Your task to perform on an android device: turn on data saver in the chrome app Image 0: 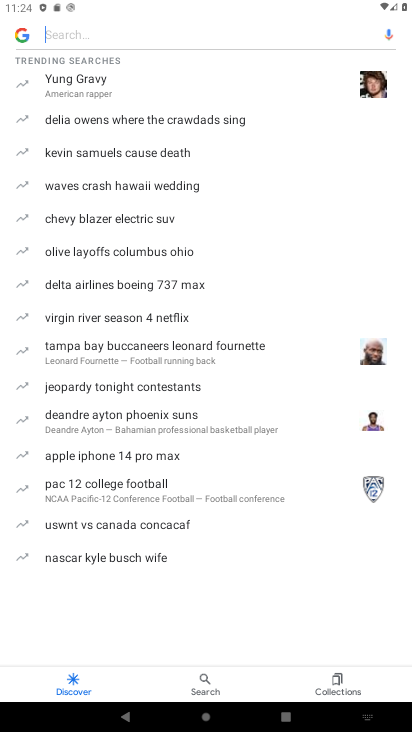
Step 0: press home button
Your task to perform on an android device: turn on data saver in the chrome app Image 1: 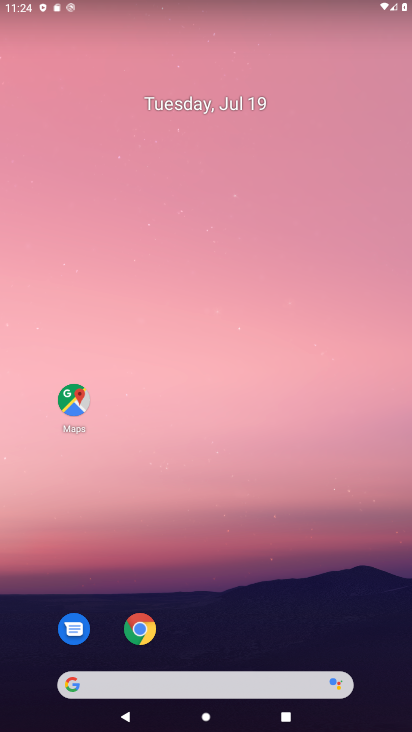
Step 1: drag from (349, 594) to (346, 110)
Your task to perform on an android device: turn on data saver in the chrome app Image 2: 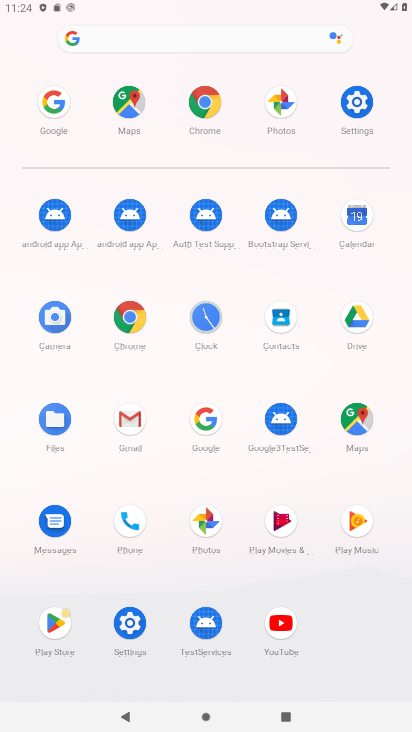
Step 2: click (135, 312)
Your task to perform on an android device: turn on data saver in the chrome app Image 3: 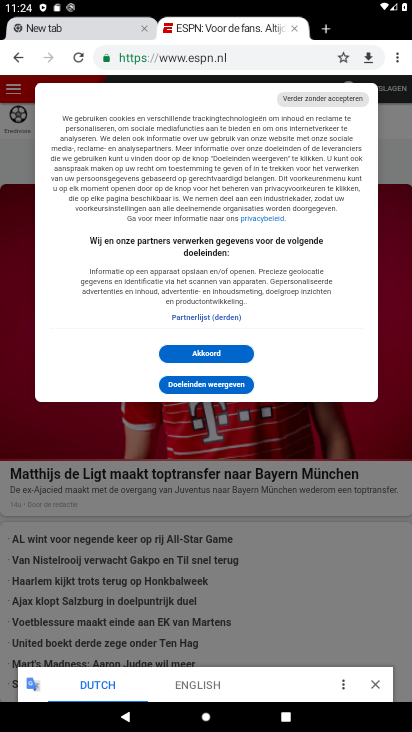
Step 3: click (399, 59)
Your task to perform on an android device: turn on data saver in the chrome app Image 4: 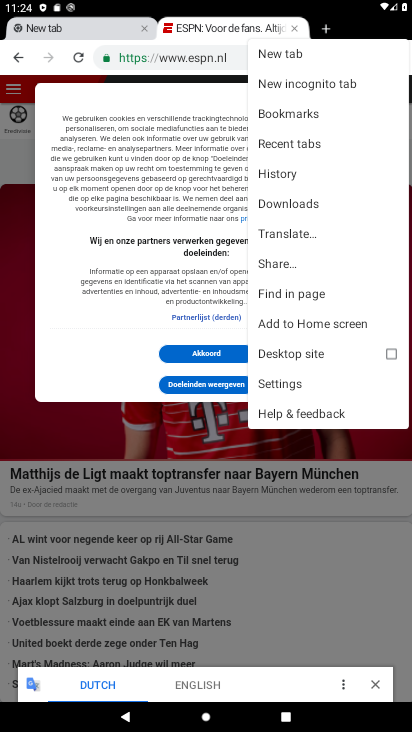
Step 4: click (325, 372)
Your task to perform on an android device: turn on data saver in the chrome app Image 5: 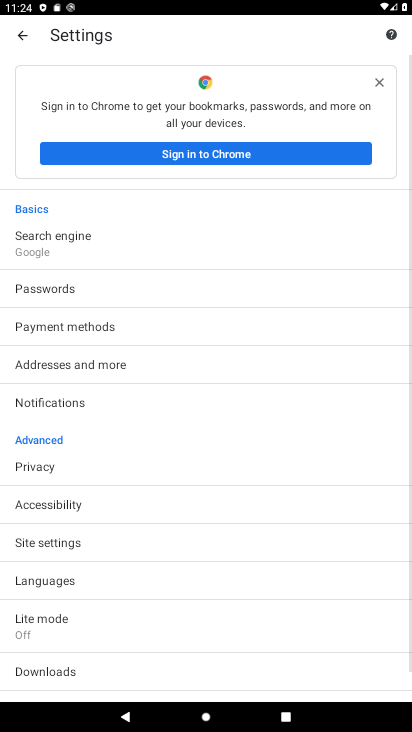
Step 5: drag from (310, 455) to (322, 370)
Your task to perform on an android device: turn on data saver in the chrome app Image 6: 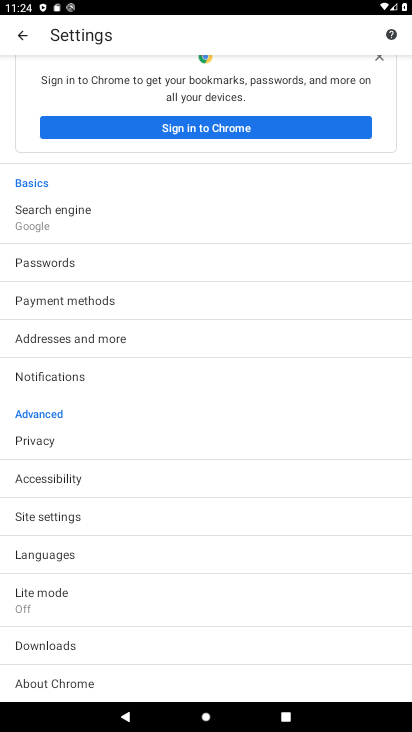
Step 6: drag from (319, 471) to (322, 363)
Your task to perform on an android device: turn on data saver in the chrome app Image 7: 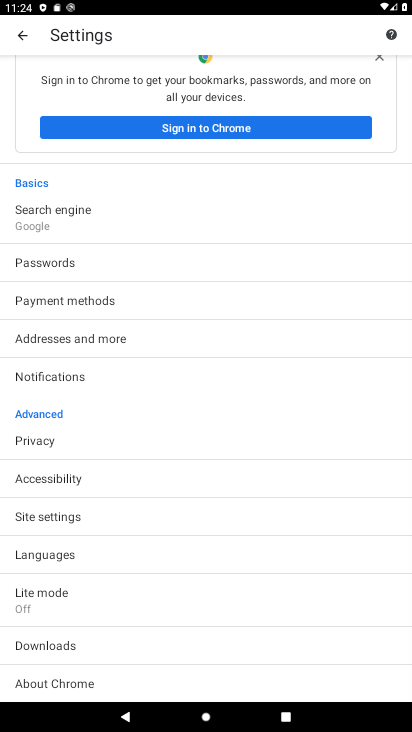
Step 7: click (311, 595)
Your task to perform on an android device: turn on data saver in the chrome app Image 8: 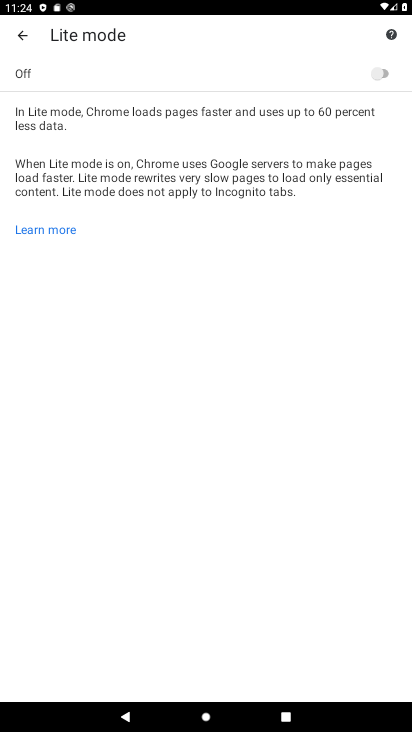
Step 8: click (373, 76)
Your task to perform on an android device: turn on data saver in the chrome app Image 9: 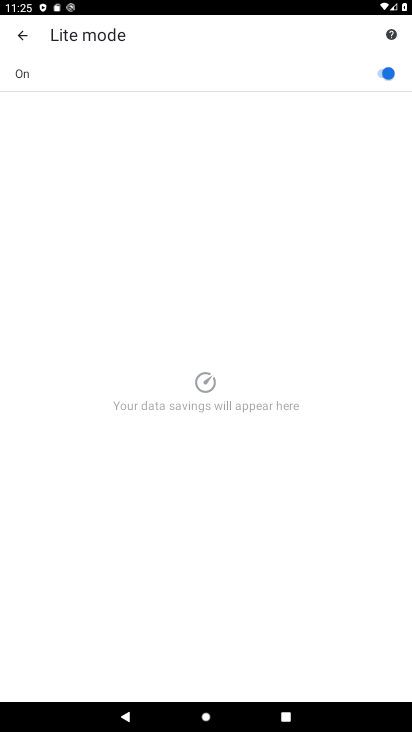
Step 9: task complete